Your task to perform on an android device: Show me productivity apps on the Play Store Image 0: 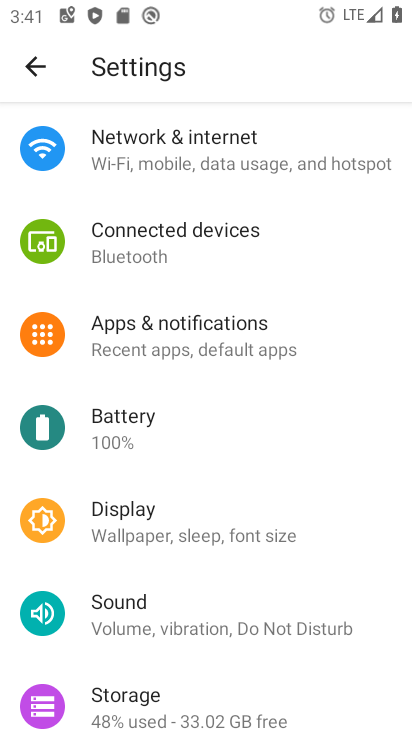
Step 0: press home button
Your task to perform on an android device: Show me productivity apps on the Play Store Image 1: 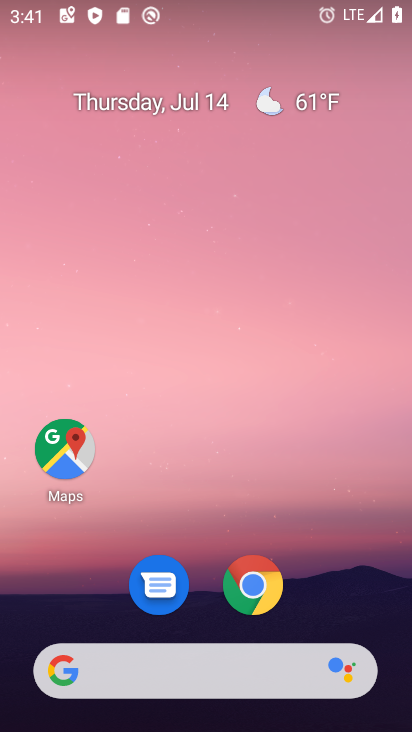
Step 1: drag from (311, 550) to (354, 10)
Your task to perform on an android device: Show me productivity apps on the Play Store Image 2: 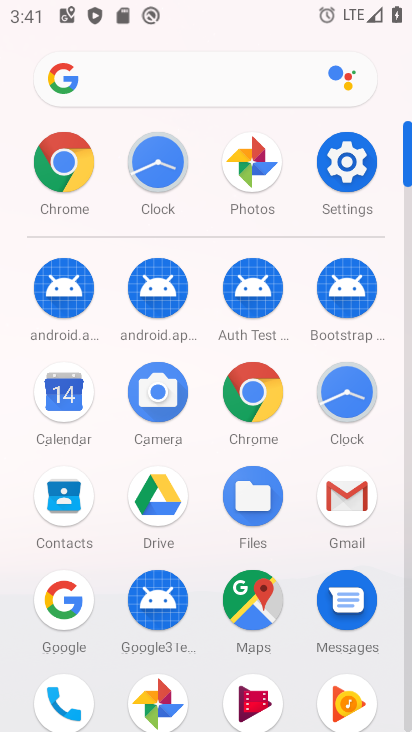
Step 2: drag from (199, 503) to (225, 207)
Your task to perform on an android device: Show me productivity apps on the Play Store Image 3: 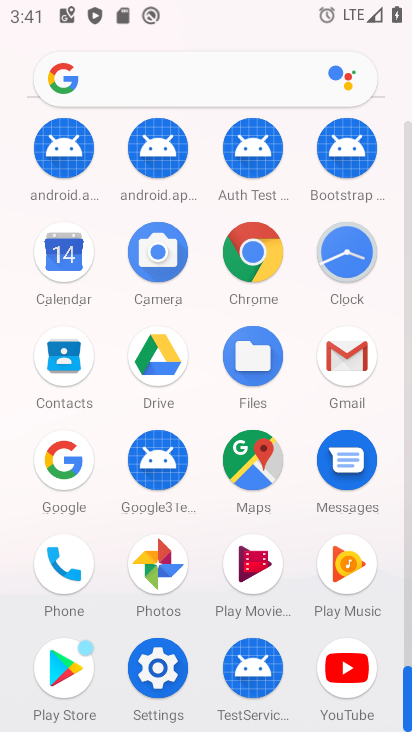
Step 3: click (58, 652)
Your task to perform on an android device: Show me productivity apps on the Play Store Image 4: 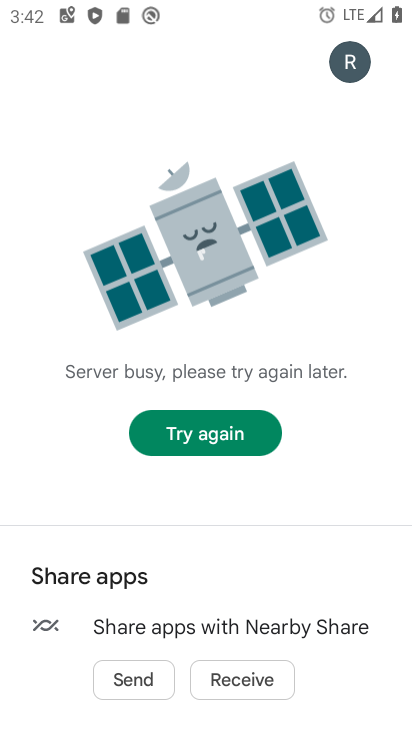
Step 4: click (259, 442)
Your task to perform on an android device: Show me productivity apps on the Play Store Image 5: 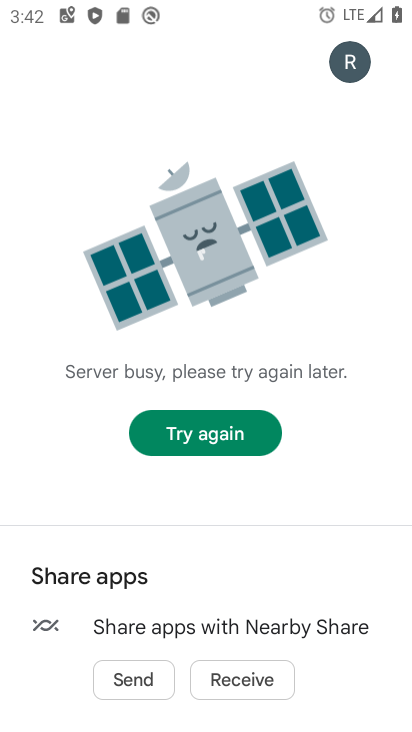
Step 5: click (258, 441)
Your task to perform on an android device: Show me productivity apps on the Play Store Image 6: 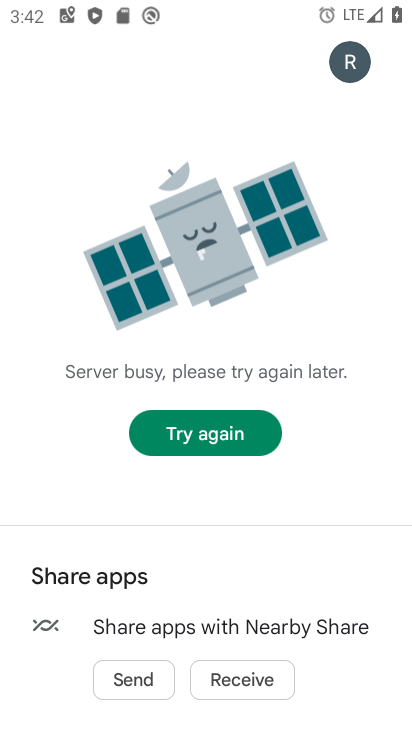
Step 6: task complete